Your task to perform on an android device: toggle data saver in the chrome app Image 0: 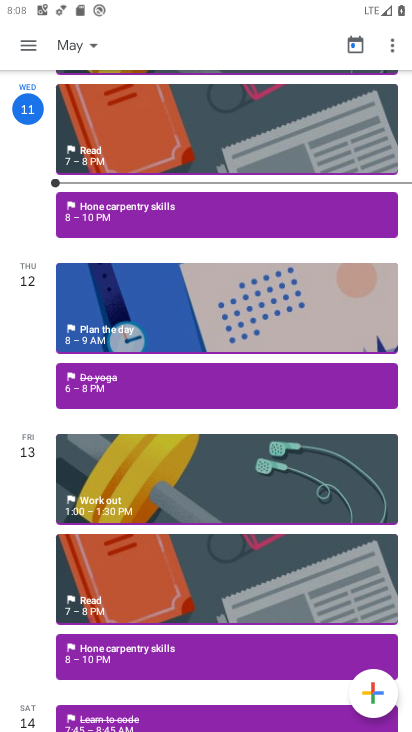
Step 0: press home button
Your task to perform on an android device: toggle data saver in the chrome app Image 1: 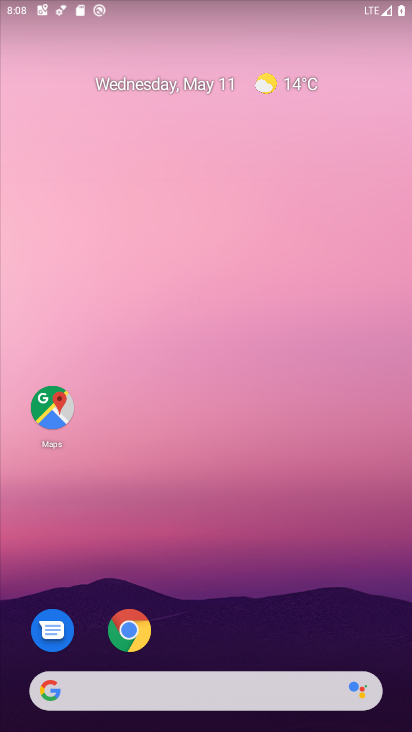
Step 1: click (131, 633)
Your task to perform on an android device: toggle data saver in the chrome app Image 2: 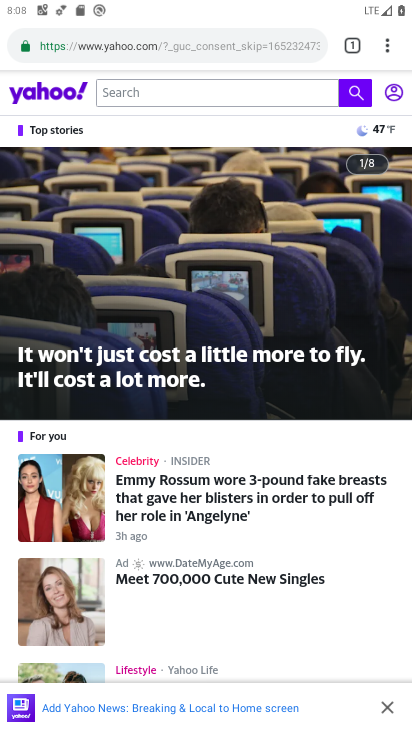
Step 2: click (388, 42)
Your task to perform on an android device: toggle data saver in the chrome app Image 3: 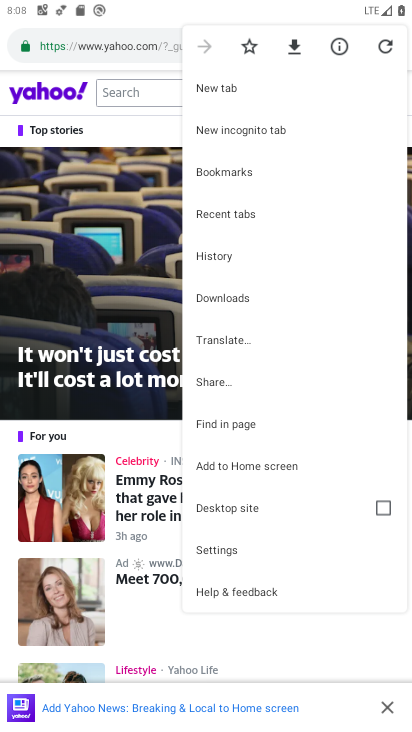
Step 3: click (226, 549)
Your task to perform on an android device: toggle data saver in the chrome app Image 4: 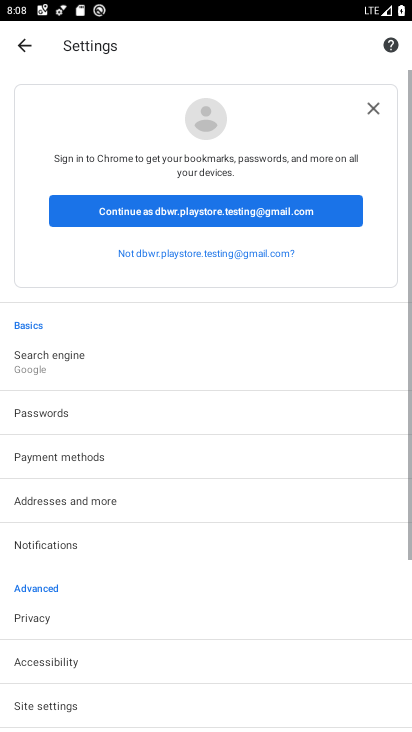
Step 4: drag from (138, 668) to (254, 170)
Your task to perform on an android device: toggle data saver in the chrome app Image 5: 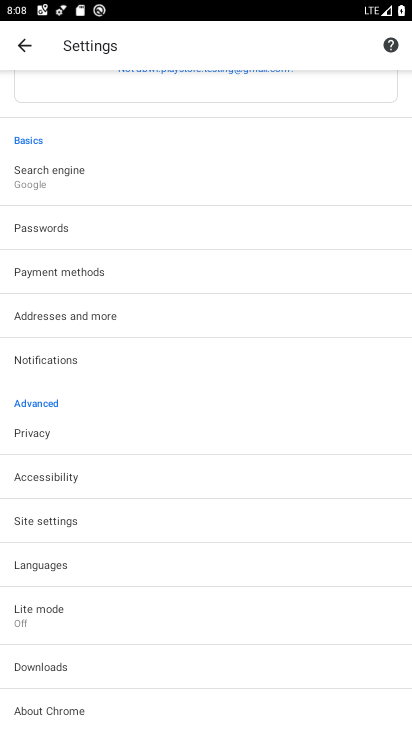
Step 5: click (81, 621)
Your task to perform on an android device: toggle data saver in the chrome app Image 6: 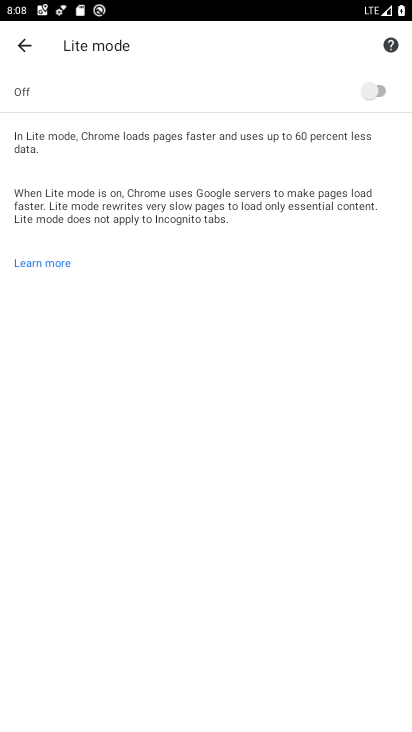
Step 6: click (371, 87)
Your task to perform on an android device: toggle data saver in the chrome app Image 7: 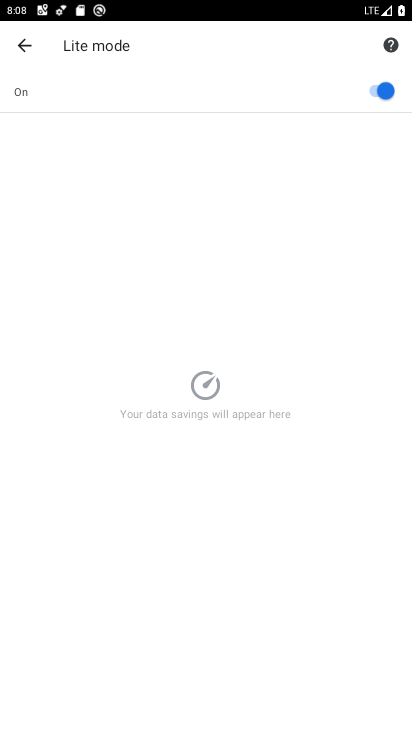
Step 7: task complete